Your task to perform on an android device: What's the weather going to be tomorrow? Image 0: 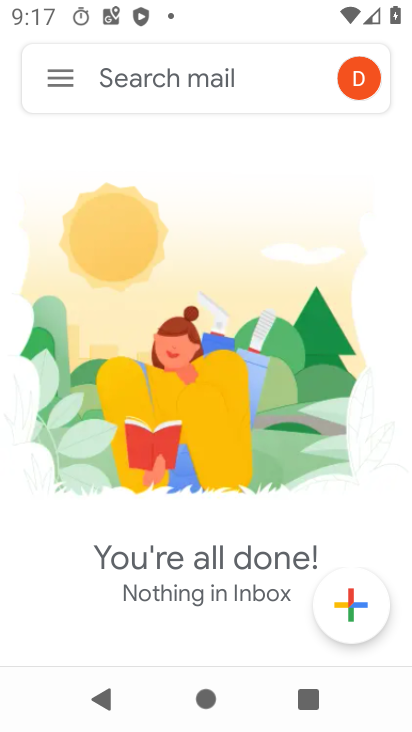
Step 0: press home button
Your task to perform on an android device: What's the weather going to be tomorrow? Image 1: 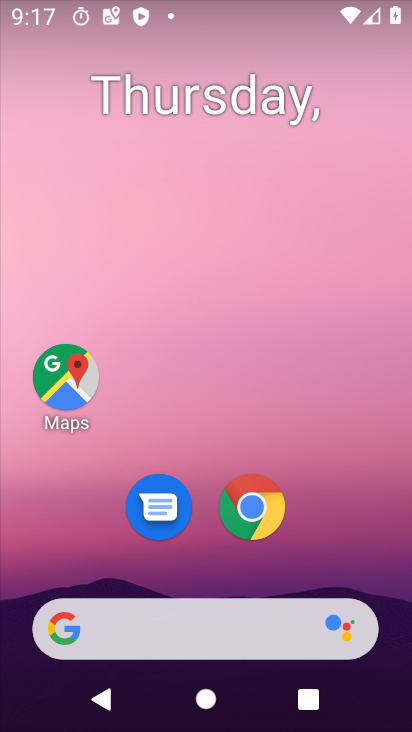
Step 1: click (218, 626)
Your task to perform on an android device: What's the weather going to be tomorrow? Image 2: 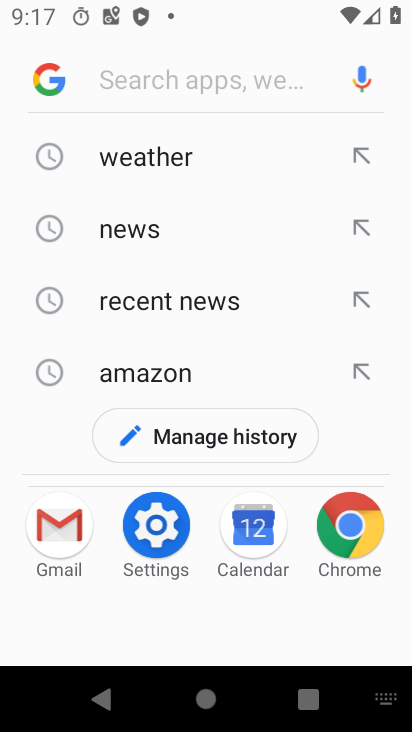
Step 2: click (186, 163)
Your task to perform on an android device: What's the weather going to be tomorrow? Image 3: 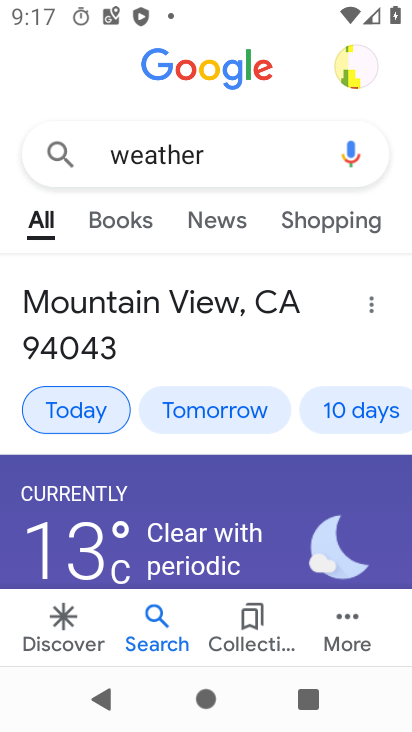
Step 3: drag from (158, 523) to (176, 441)
Your task to perform on an android device: What's the weather going to be tomorrow? Image 4: 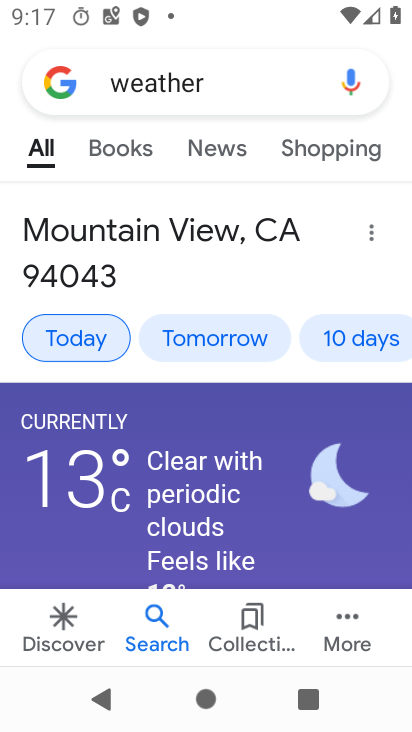
Step 4: click (211, 337)
Your task to perform on an android device: What's the weather going to be tomorrow? Image 5: 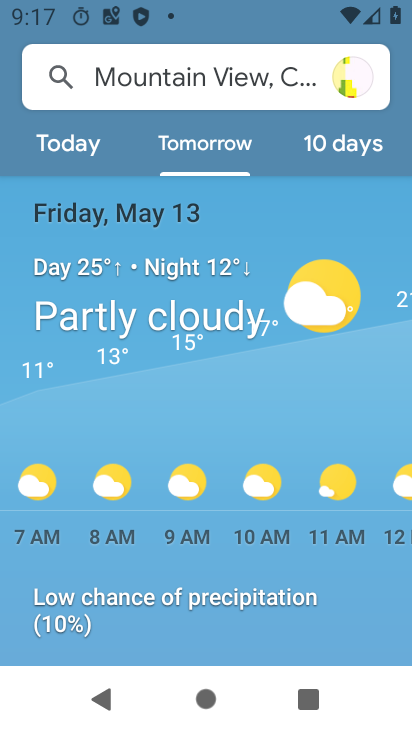
Step 5: task complete